Your task to perform on an android device: turn on javascript in the chrome app Image 0: 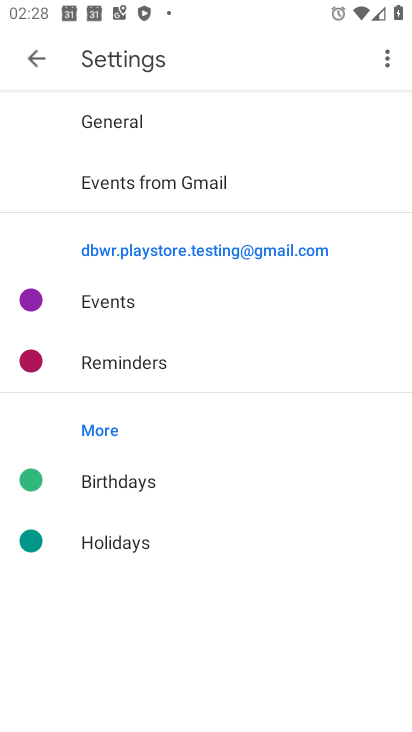
Step 0: press home button
Your task to perform on an android device: turn on javascript in the chrome app Image 1: 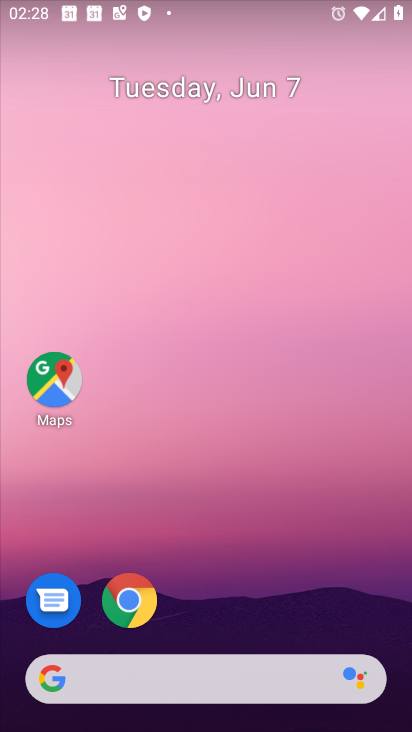
Step 1: click (125, 599)
Your task to perform on an android device: turn on javascript in the chrome app Image 2: 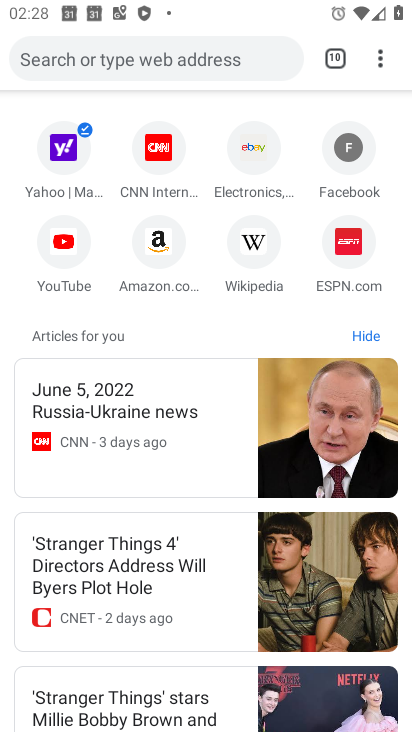
Step 2: click (380, 67)
Your task to perform on an android device: turn on javascript in the chrome app Image 3: 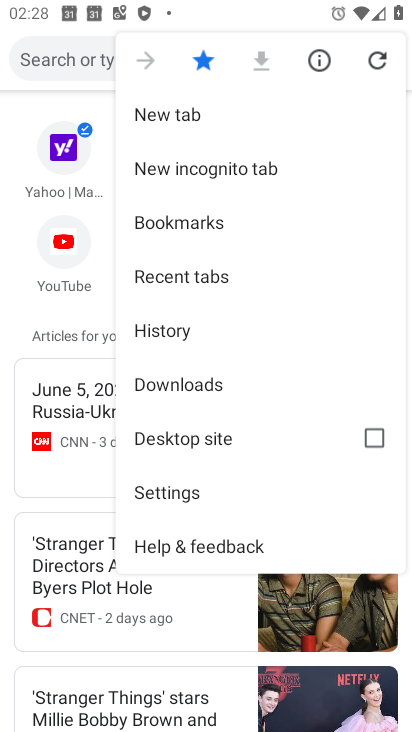
Step 3: click (161, 490)
Your task to perform on an android device: turn on javascript in the chrome app Image 4: 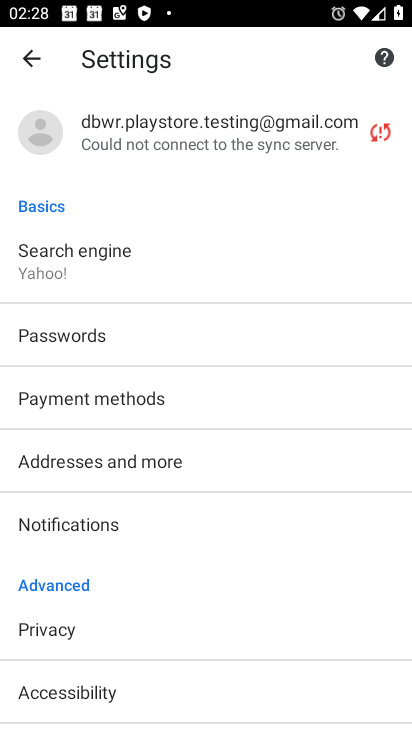
Step 4: drag from (157, 691) to (143, 356)
Your task to perform on an android device: turn on javascript in the chrome app Image 5: 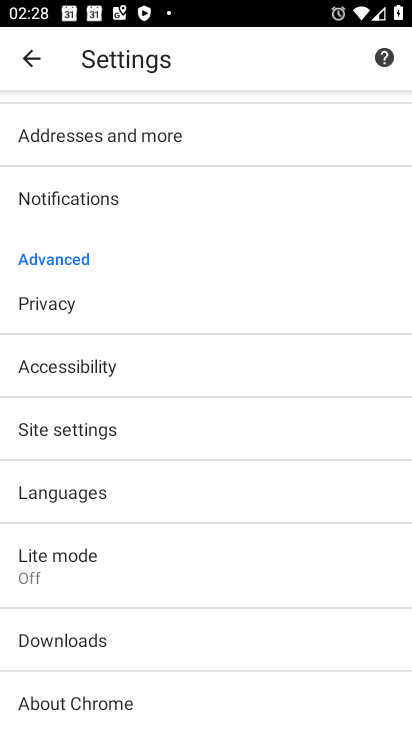
Step 5: click (63, 427)
Your task to perform on an android device: turn on javascript in the chrome app Image 6: 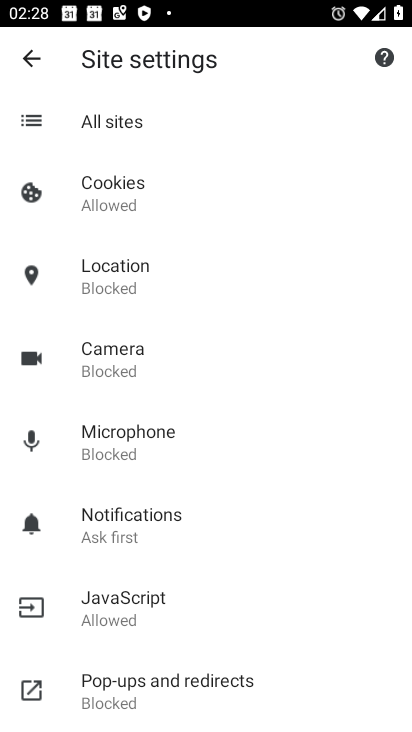
Step 6: click (127, 598)
Your task to perform on an android device: turn on javascript in the chrome app Image 7: 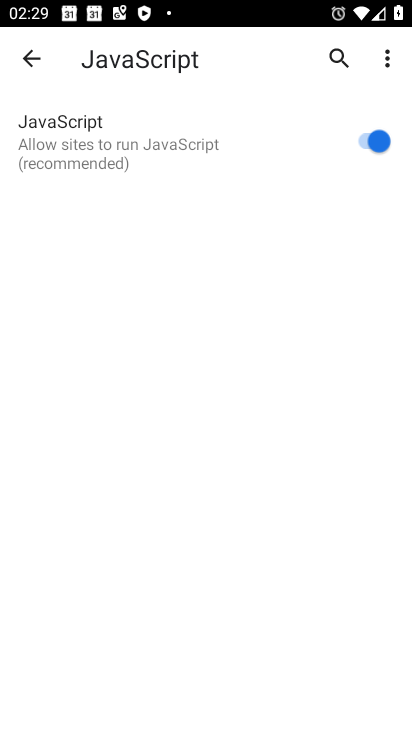
Step 7: task complete